Your task to perform on an android device: move an email to a new category in the gmail app Image 0: 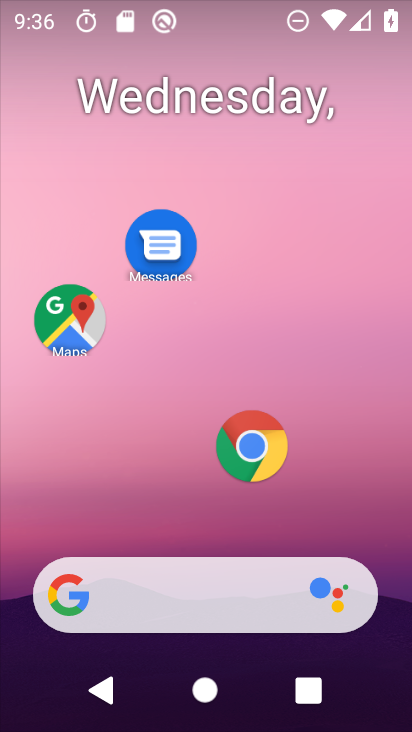
Step 0: drag from (232, 534) to (323, 135)
Your task to perform on an android device: move an email to a new category in the gmail app Image 1: 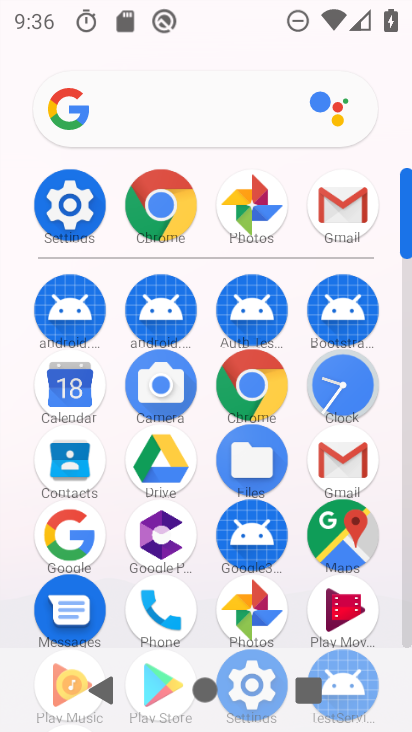
Step 1: click (332, 199)
Your task to perform on an android device: move an email to a new category in the gmail app Image 2: 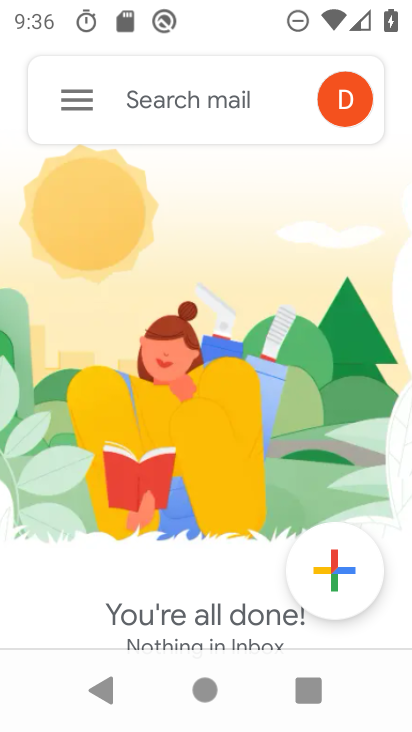
Step 2: click (80, 107)
Your task to perform on an android device: move an email to a new category in the gmail app Image 3: 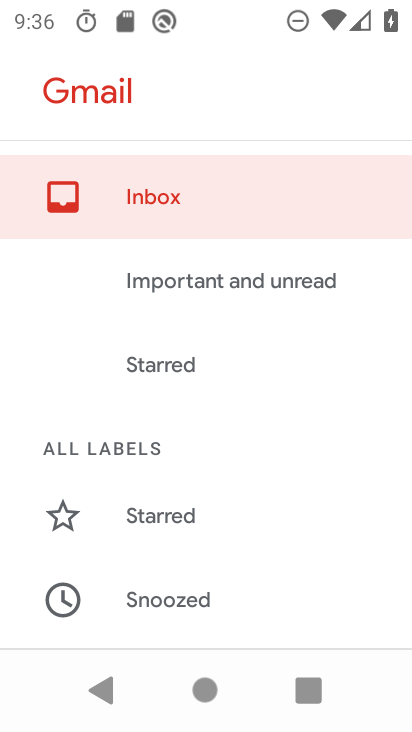
Step 3: drag from (162, 580) to (263, 348)
Your task to perform on an android device: move an email to a new category in the gmail app Image 4: 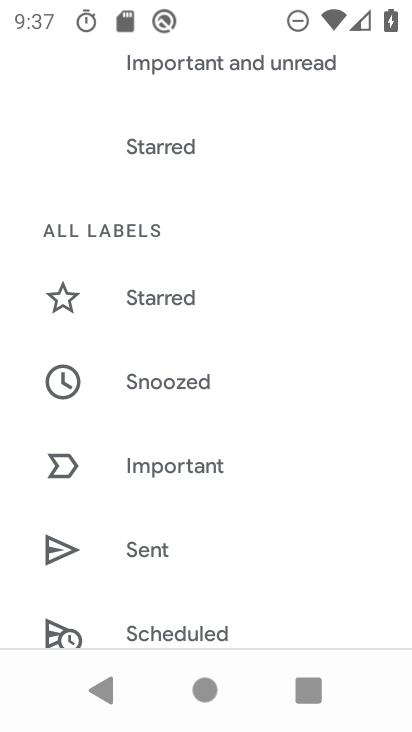
Step 4: drag from (233, 599) to (300, 293)
Your task to perform on an android device: move an email to a new category in the gmail app Image 5: 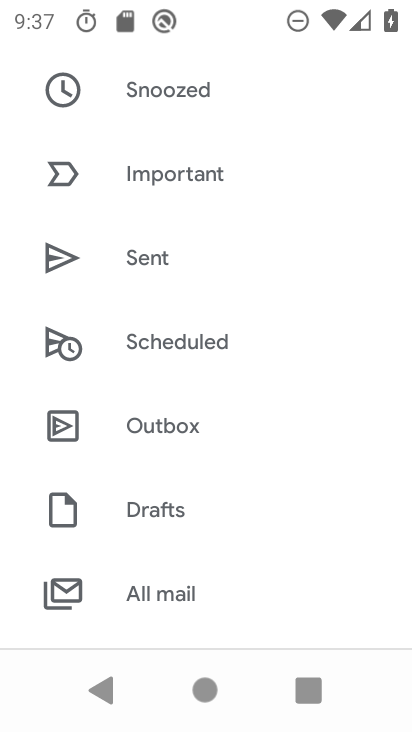
Step 5: click (207, 593)
Your task to perform on an android device: move an email to a new category in the gmail app Image 6: 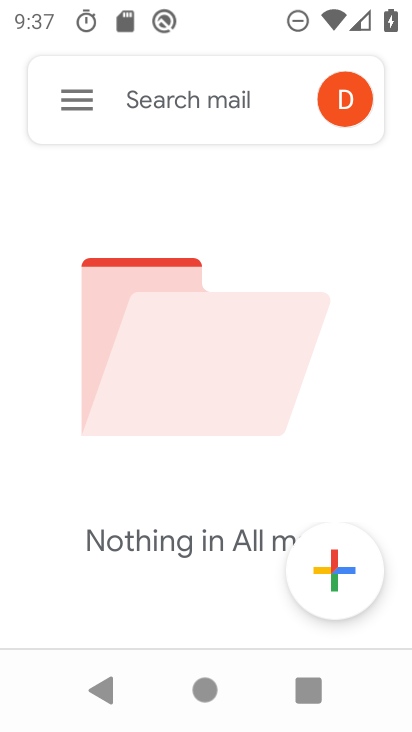
Step 6: task complete